Your task to perform on an android device: all mails in gmail Image 0: 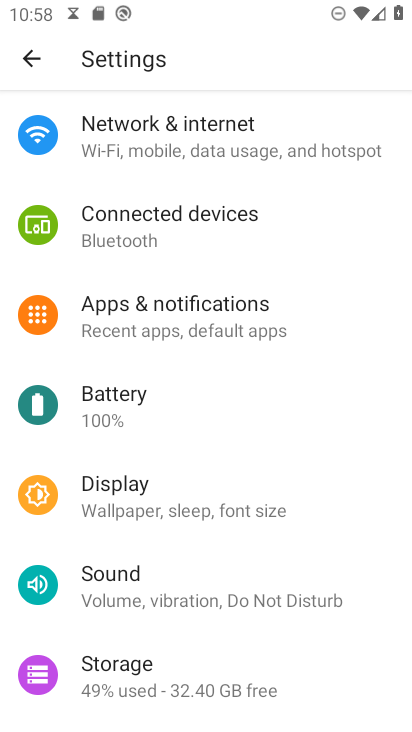
Step 0: press home button
Your task to perform on an android device: all mails in gmail Image 1: 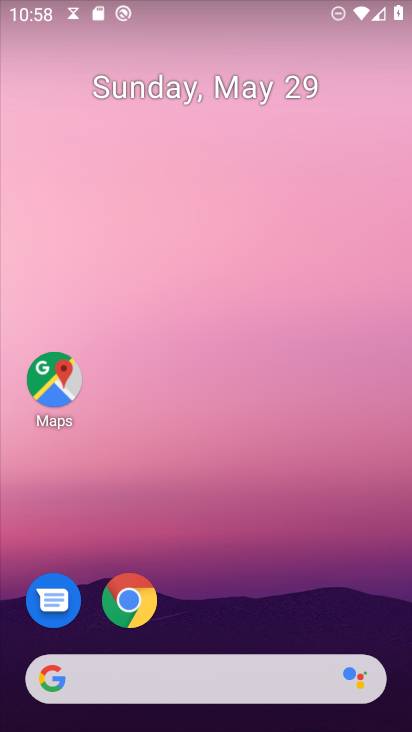
Step 1: drag from (221, 725) to (222, 165)
Your task to perform on an android device: all mails in gmail Image 2: 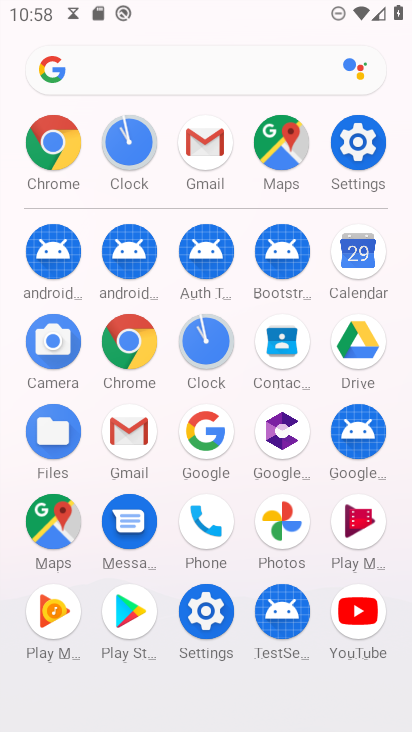
Step 2: click (115, 439)
Your task to perform on an android device: all mails in gmail Image 3: 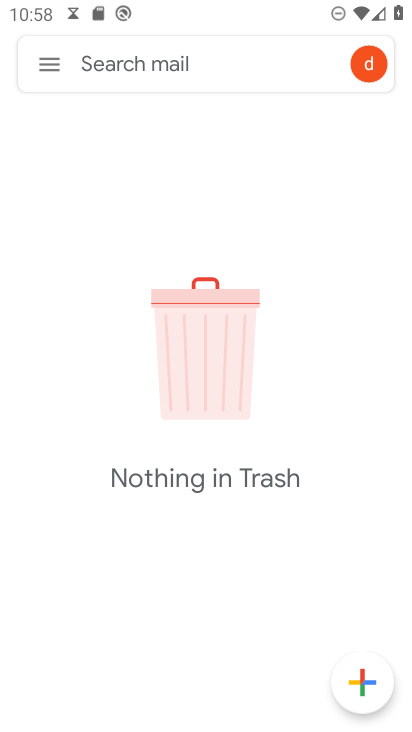
Step 3: click (47, 60)
Your task to perform on an android device: all mails in gmail Image 4: 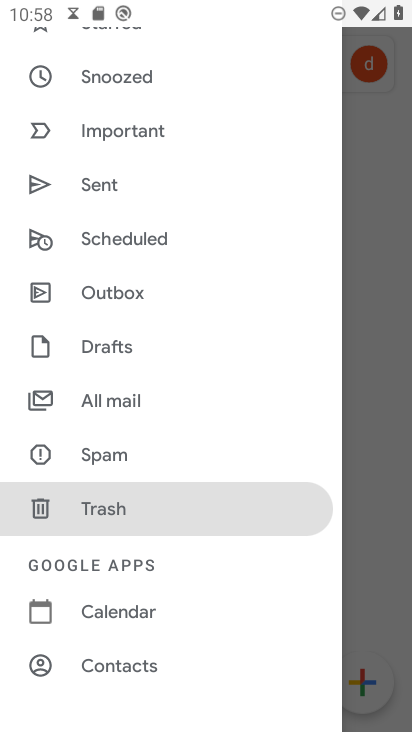
Step 4: click (108, 397)
Your task to perform on an android device: all mails in gmail Image 5: 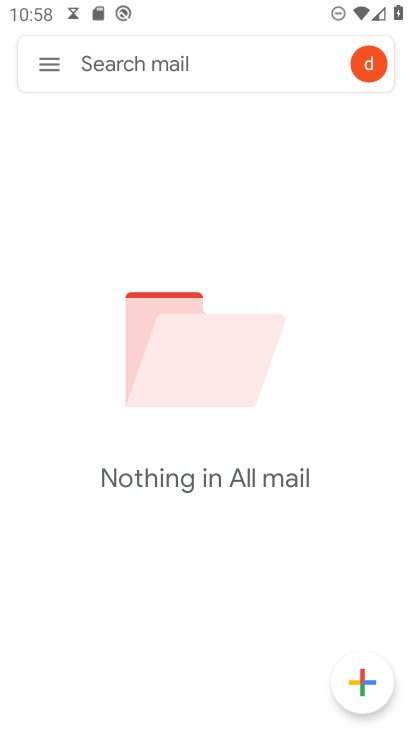
Step 5: click (44, 63)
Your task to perform on an android device: all mails in gmail Image 6: 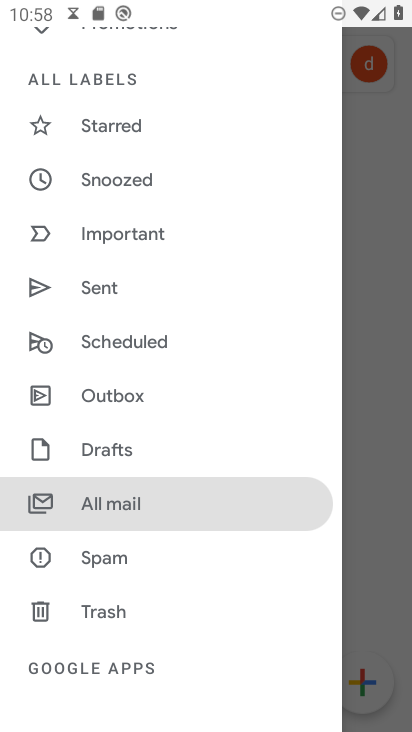
Step 6: click (146, 509)
Your task to perform on an android device: all mails in gmail Image 7: 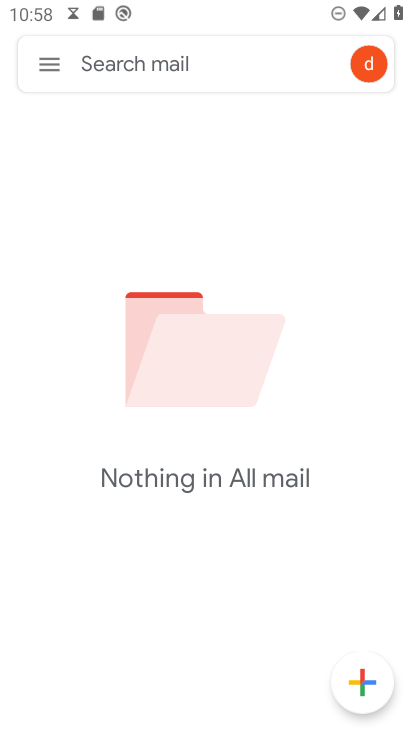
Step 7: task complete